Your task to perform on an android device: turn off wifi Image 0: 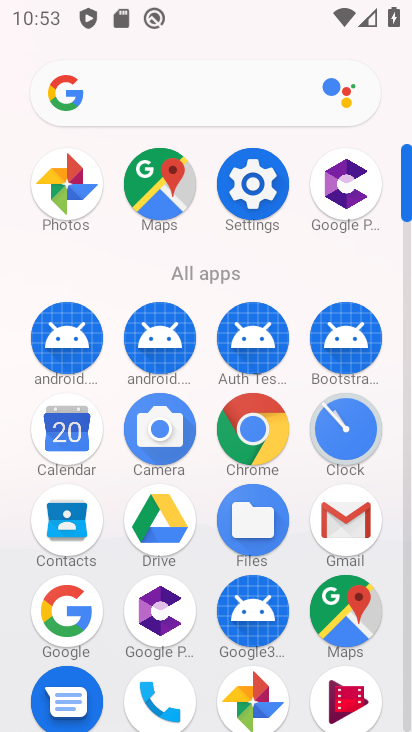
Step 0: press home button
Your task to perform on an android device: turn off wifi Image 1: 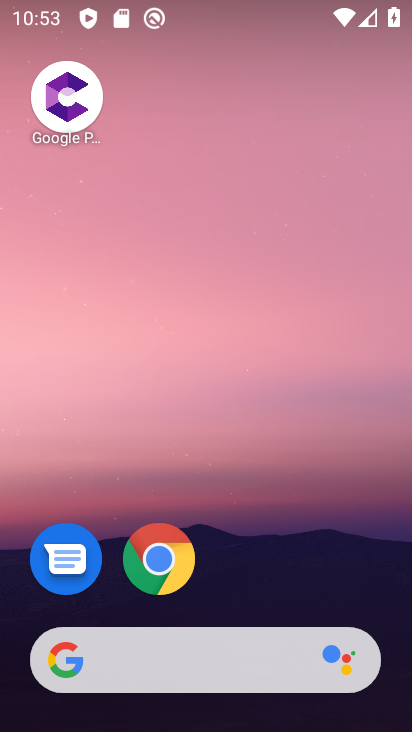
Step 1: drag from (289, 654) to (335, 327)
Your task to perform on an android device: turn off wifi Image 2: 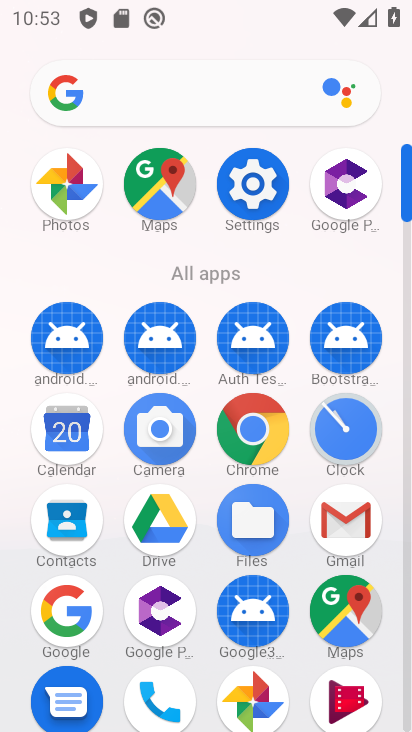
Step 2: click (245, 199)
Your task to perform on an android device: turn off wifi Image 3: 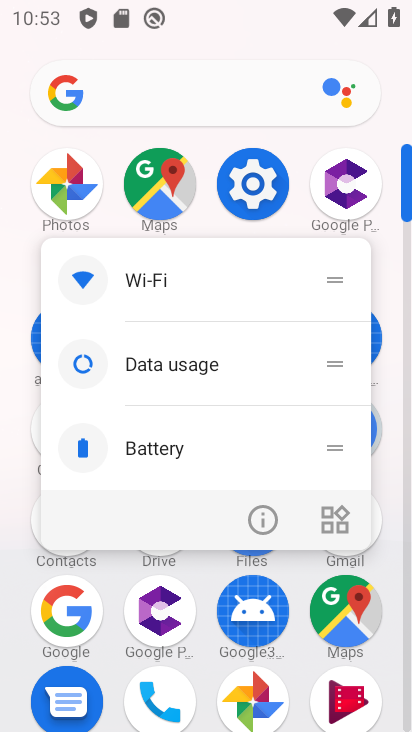
Step 3: click (270, 175)
Your task to perform on an android device: turn off wifi Image 4: 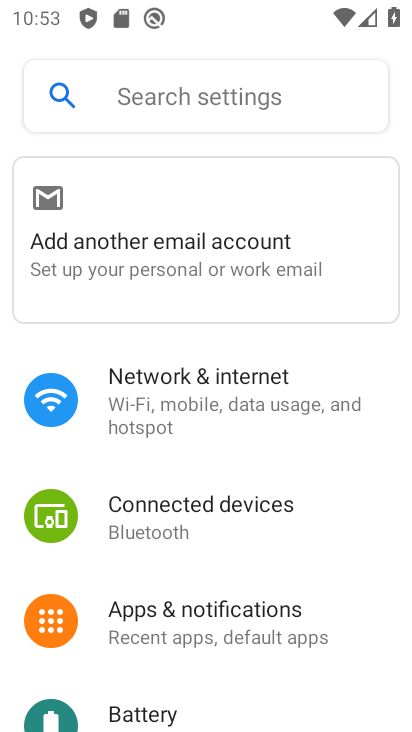
Step 4: click (210, 426)
Your task to perform on an android device: turn off wifi Image 5: 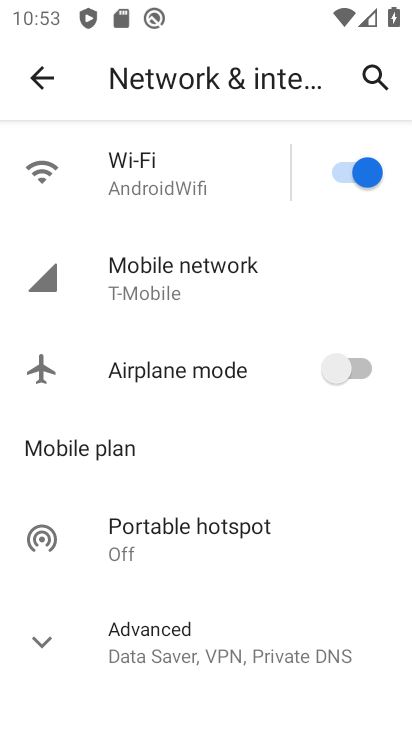
Step 5: click (361, 166)
Your task to perform on an android device: turn off wifi Image 6: 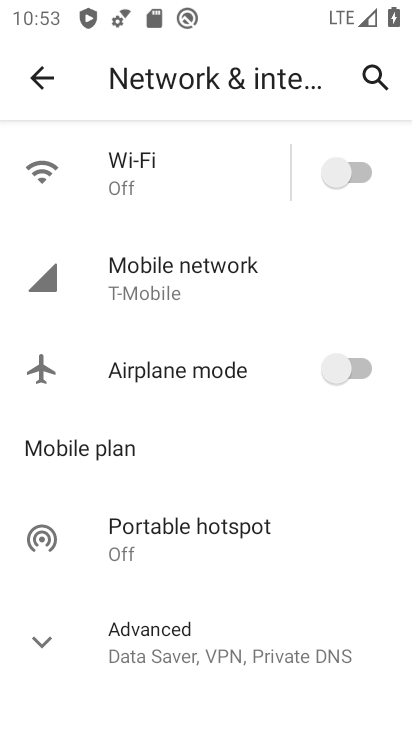
Step 6: task complete